Your task to perform on an android device: What's on my calendar tomorrow? Image 0: 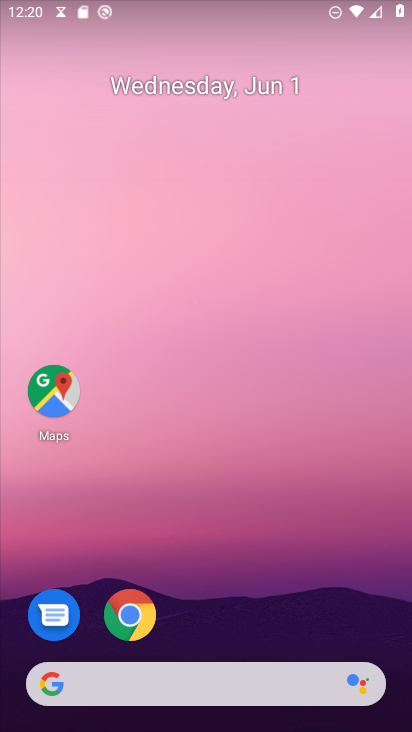
Step 0: drag from (229, 680) to (290, 87)
Your task to perform on an android device: What's on my calendar tomorrow? Image 1: 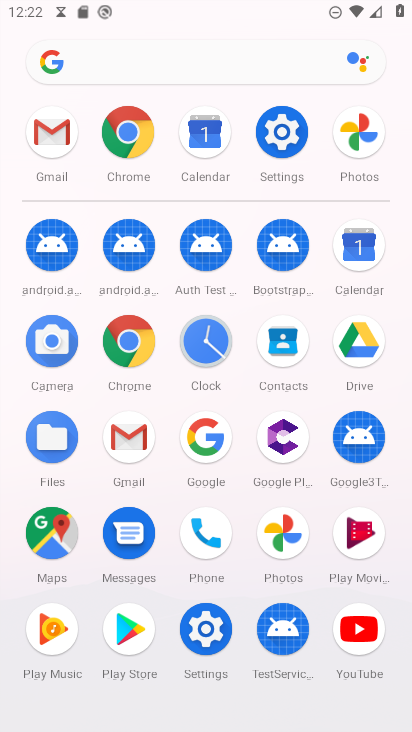
Step 1: click (360, 232)
Your task to perform on an android device: What's on my calendar tomorrow? Image 2: 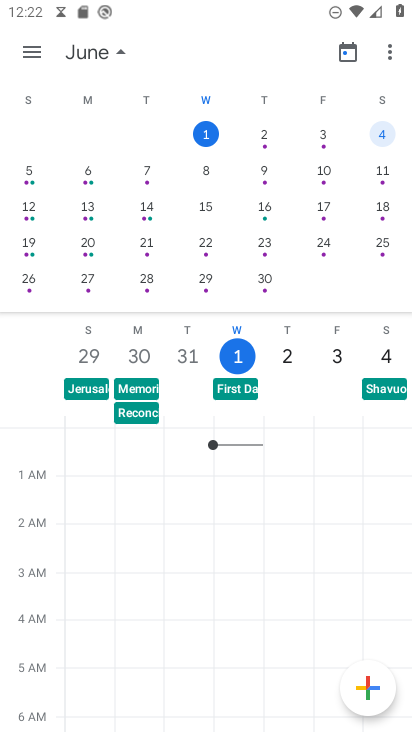
Step 2: click (258, 132)
Your task to perform on an android device: What's on my calendar tomorrow? Image 3: 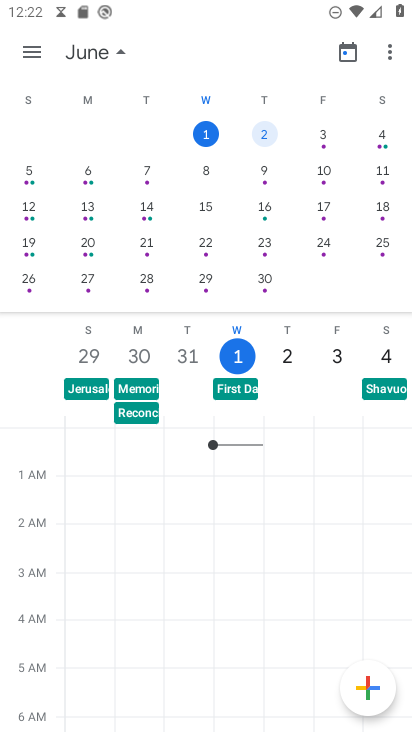
Step 3: task complete